Your task to perform on an android device: find snoozed emails in the gmail app Image 0: 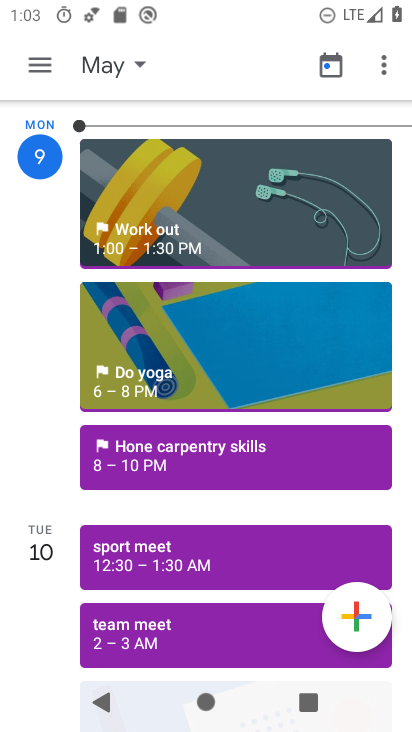
Step 0: press home button
Your task to perform on an android device: find snoozed emails in the gmail app Image 1: 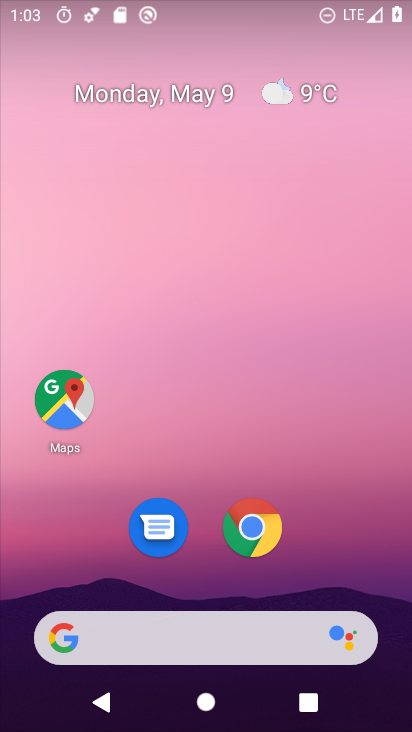
Step 1: drag from (180, 562) to (302, 14)
Your task to perform on an android device: find snoozed emails in the gmail app Image 2: 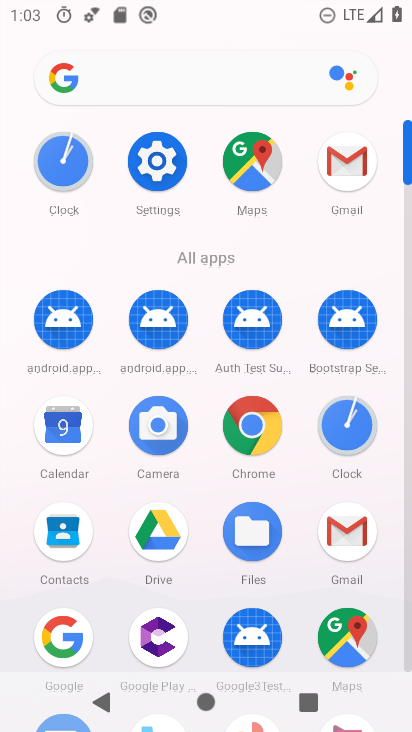
Step 2: click (335, 160)
Your task to perform on an android device: find snoozed emails in the gmail app Image 3: 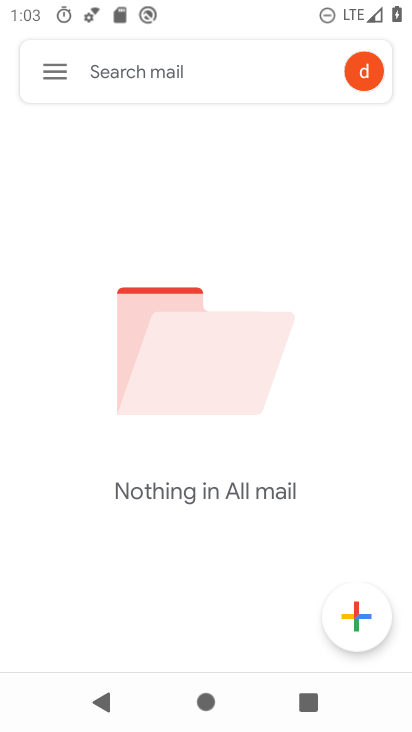
Step 3: click (57, 65)
Your task to perform on an android device: find snoozed emails in the gmail app Image 4: 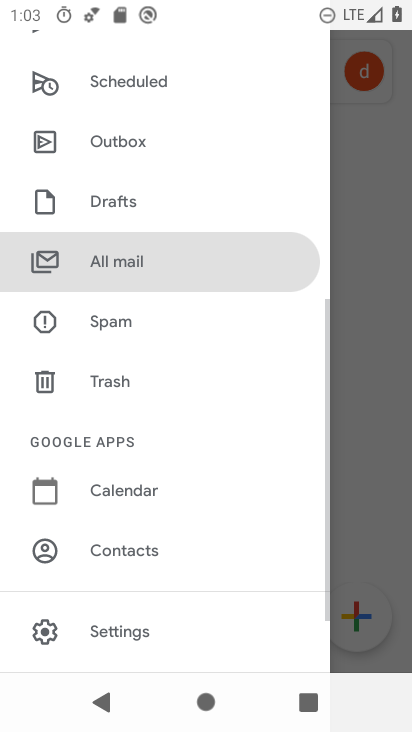
Step 4: drag from (139, 118) to (142, 647)
Your task to perform on an android device: find snoozed emails in the gmail app Image 5: 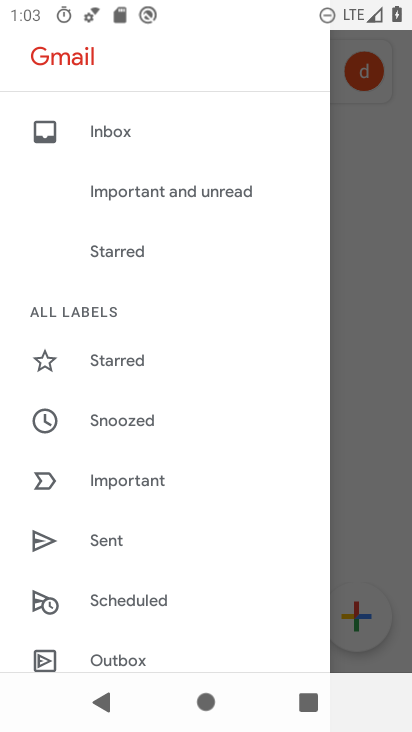
Step 5: click (165, 428)
Your task to perform on an android device: find snoozed emails in the gmail app Image 6: 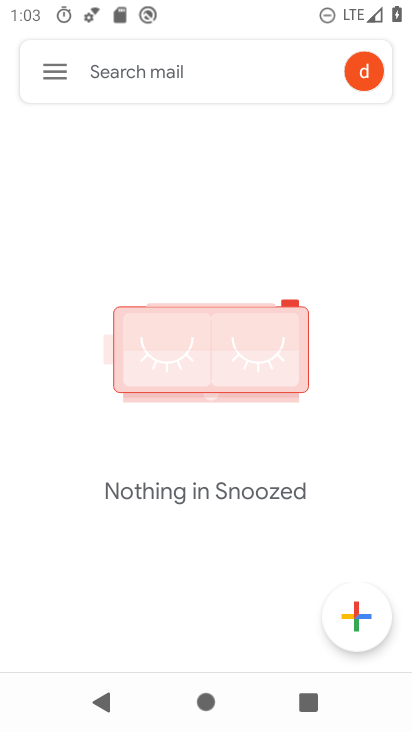
Step 6: task complete